Your task to perform on an android device: turn smart compose on in the gmail app Image 0: 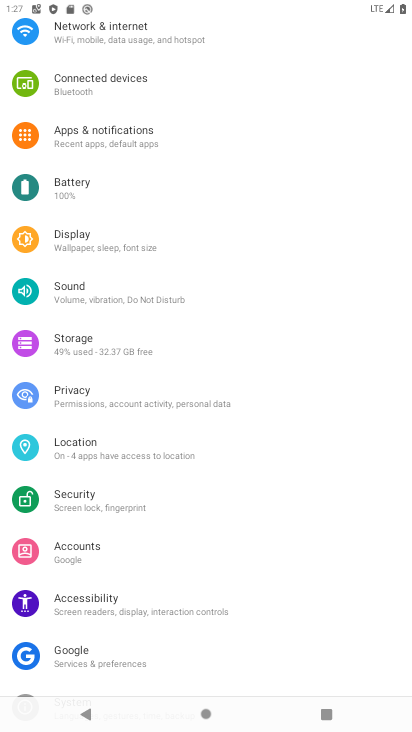
Step 0: press home button
Your task to perform on an android device: turn smart compose on in the gmail app Image 1: 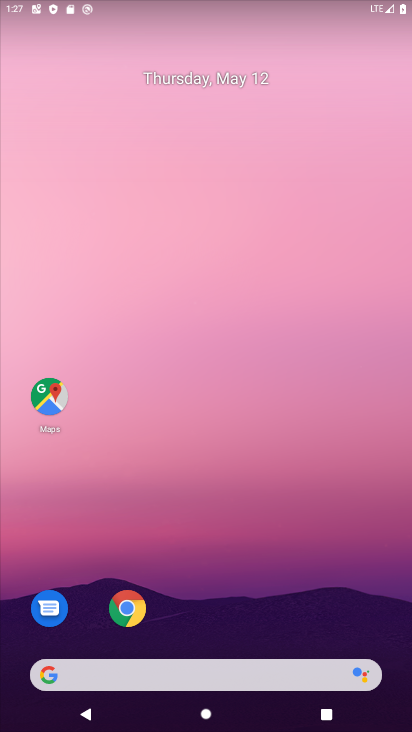
Step 1: drag from (286, 616) to (295, 0)
Your task to perform on an android device: turn smart compose on in the gmail app Image 2: 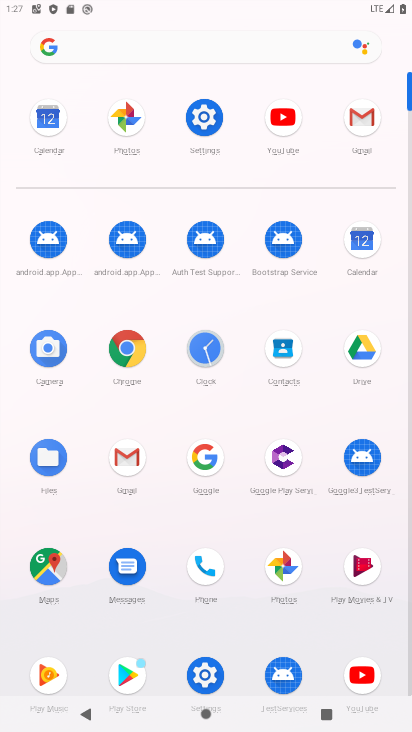
Step 2: click (359, 126)
Your task to perform on an android device: turn smart compose on in the gmail app Image 3: 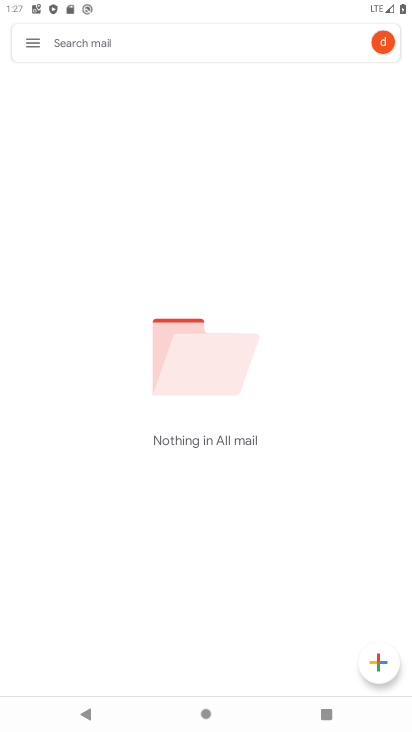
Step 3: click (36, 44)
Your task to perform on an android device: turn smart compose on in the gmail app Image 4: 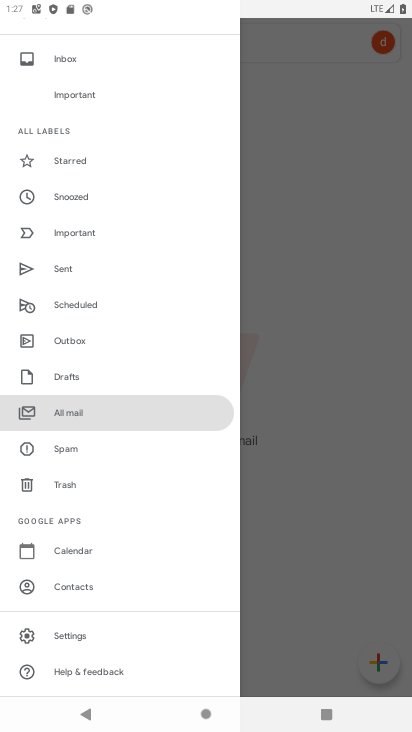
Step 4: click (65, 628)
Your task to perform on an android device: turn smart compose on in the gmail app Image 5: 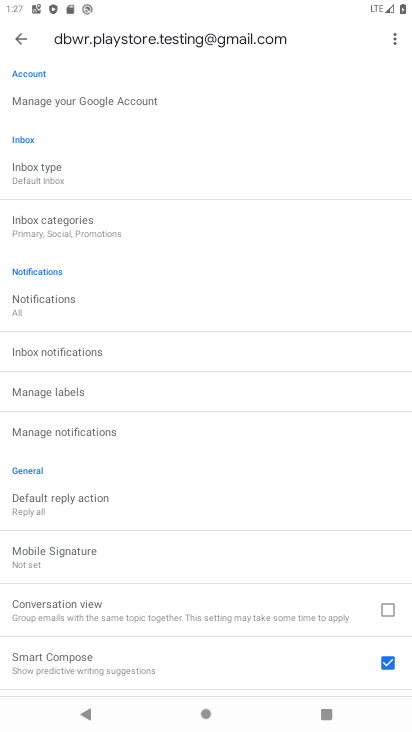
Step 5: task complete